Your task to perform on an android device: change the upload size in google photos Image 0: 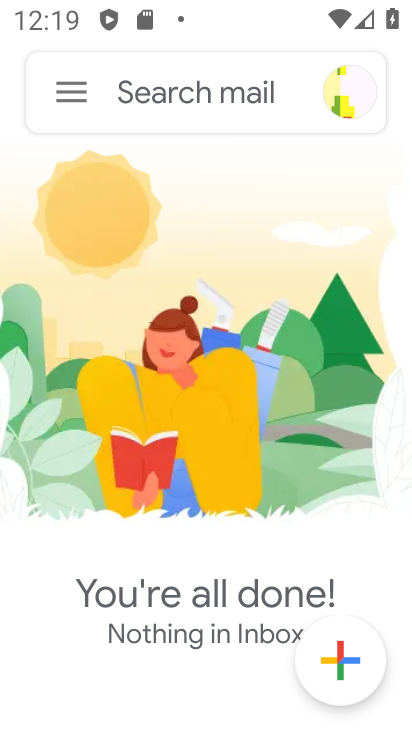
Step 0: press home button
Your task to perform on an android device: change the upload size in google photos Image 1: 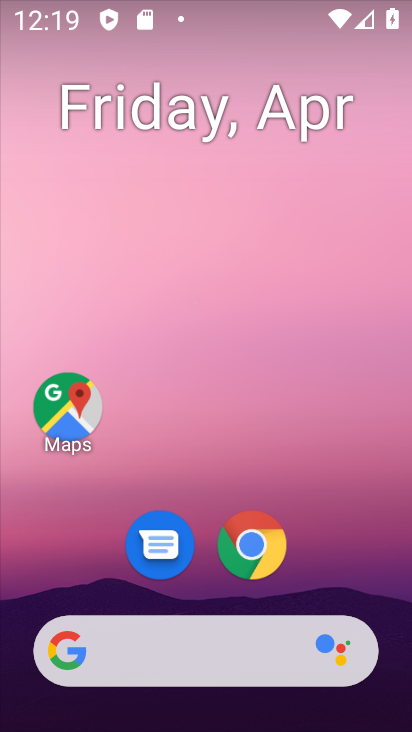
Step 1: drag from (327, 580) to (342, 79)
Your task to perform on an android device: change the upload size in google photos Image 2: 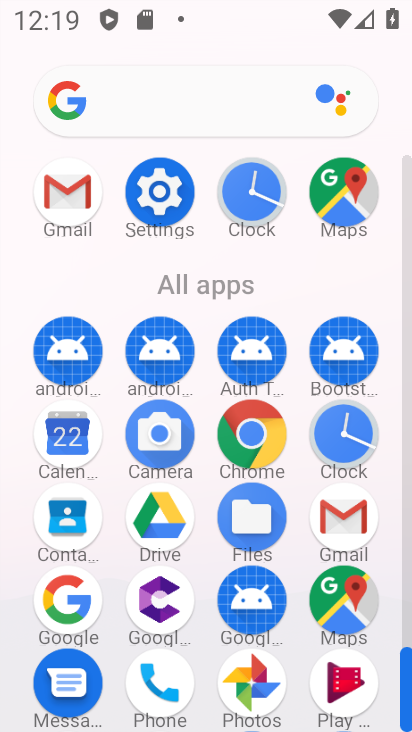
Step 2: click (260, 682)
Your task to perform on an android device: change the upload size in google photos Image 3: 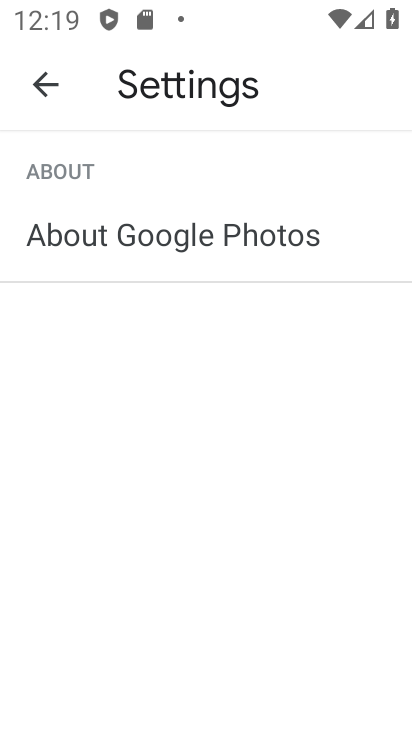
Step 3: click (50, 84)
Your task to perform on an android device: change the upload size in google photos Image 4: 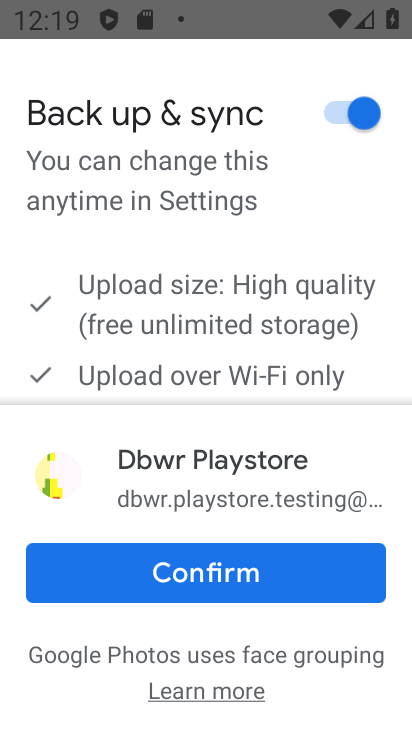
Step 4: click (254, 306)
Your task to perform on an android device: change the upload size in google photos Image 5: 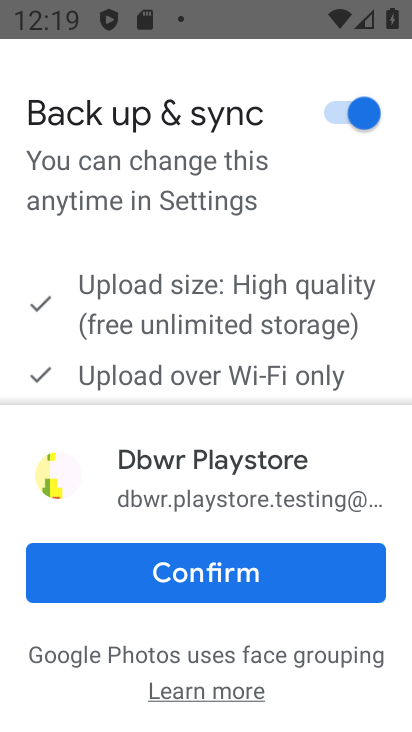
Step 5: click (215, 561)
Your task to perform on an android device: change the upload size in google photos Image 6: 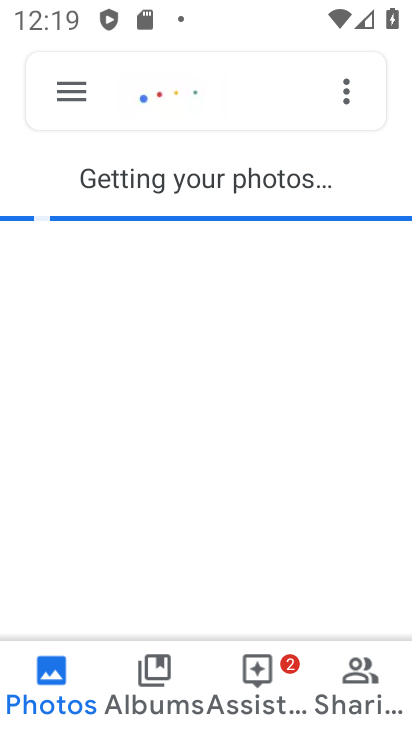
Step 6: click (61, 99)
Your task to perform on an android device: change the upload size in google photos Image 7: 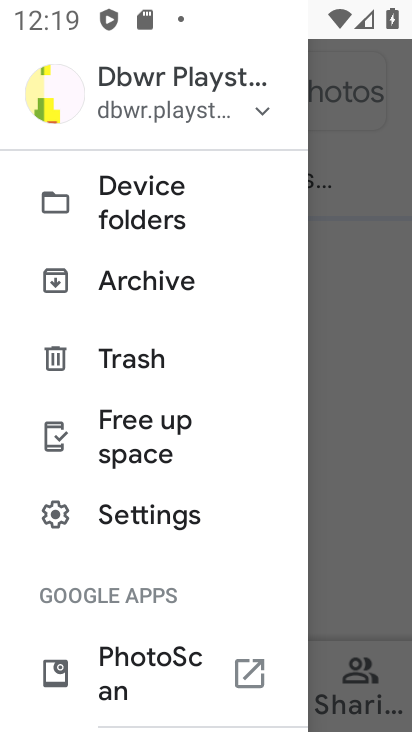
Step 7: click (141, 512)
Your task to perform on an android device: change the upload size in google photos Image 8: 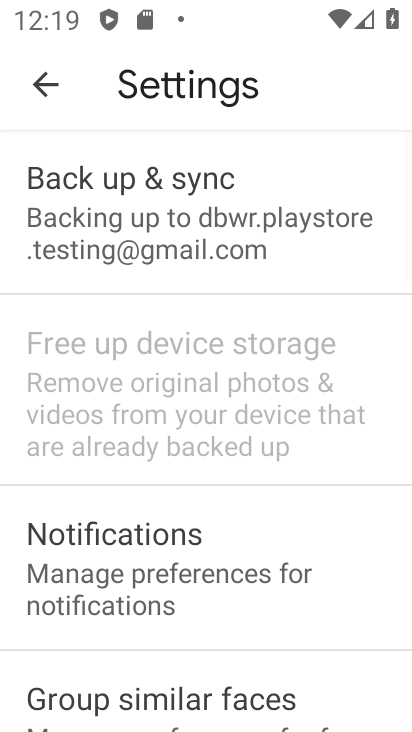
Step 8: click (251, 213)
Your task to perform on an android device: change the upload size in google photos Image 9: 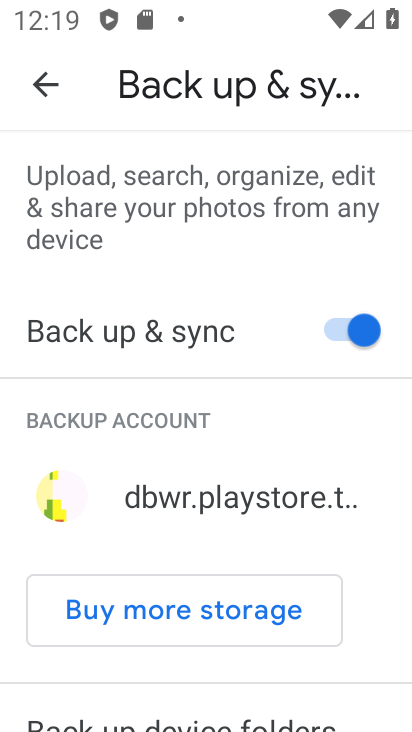
Step 9: drag from (351, 654) to (341, 344)
Your task to perform on an android device: change the upload size in google photos Image 10: 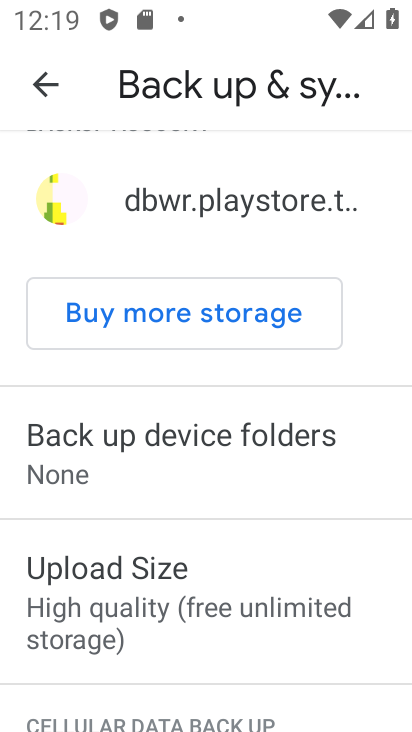
Step 10: click (269, 605)
Your task to perform on an android device: change the upload size in google photos Image 11: 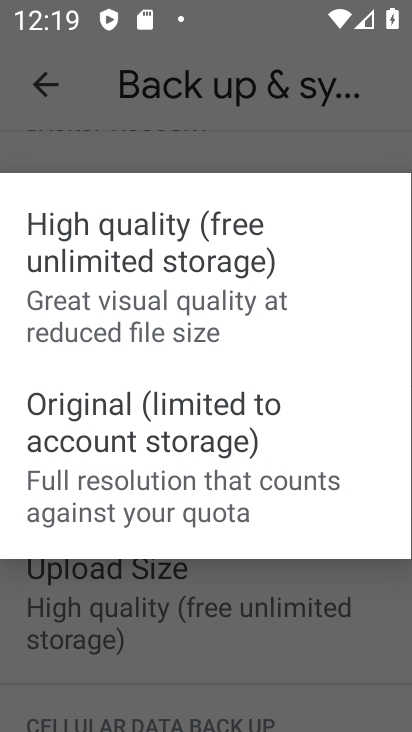
Step 11: click (218, 467)
Your task to perform on an android device: change the upload size in google photos Image 12: 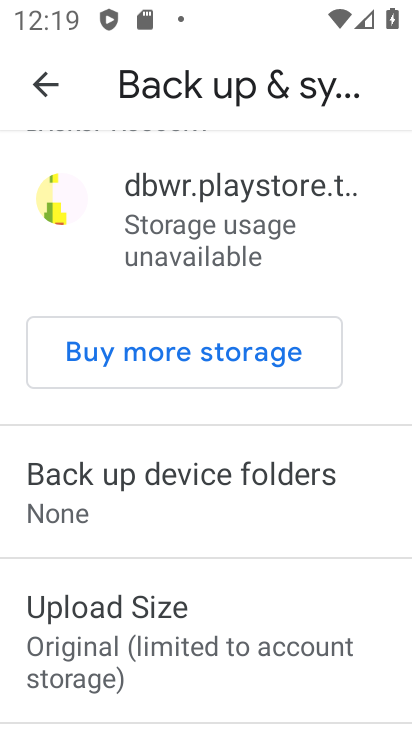
Step 12: task complete